Your task to perform on an android device: choose inbox layout in the gmail app Image 0: 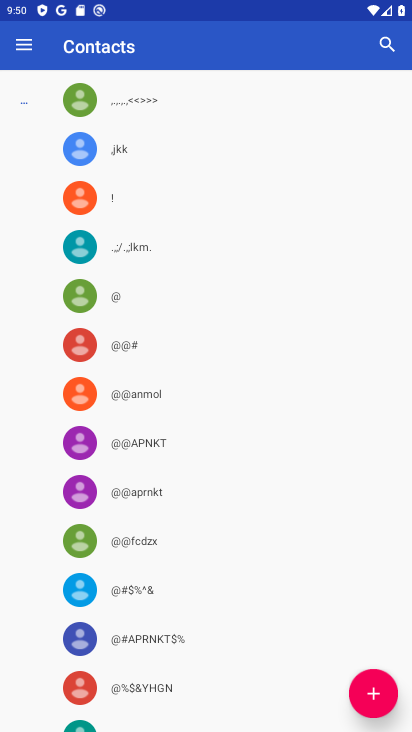
Step 0: press home button
Your task to perform on an android device: choose inbox layout in the gmail app Image 1: 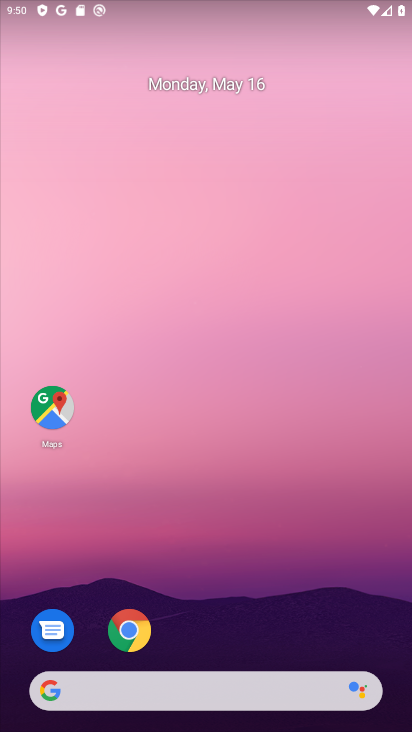
Step 1: drag from (195, 669) to (258, 193)
Your task to perform on an android device: choose inbox layout in the gmail app Image 2: 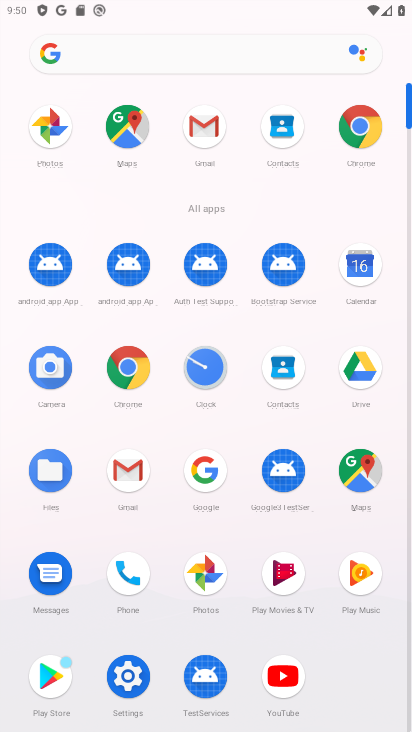
Step 2: click (137, 487)
Your task to perform on an android device: choose inbox layout in the gmail app Image 3: 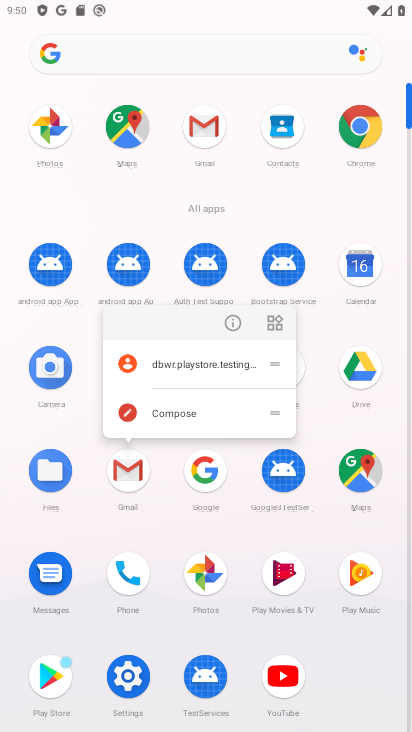
Step 3: click (133, 477)
Your task to perform on an android device: choose inbox layout in the gmail app Image 4: 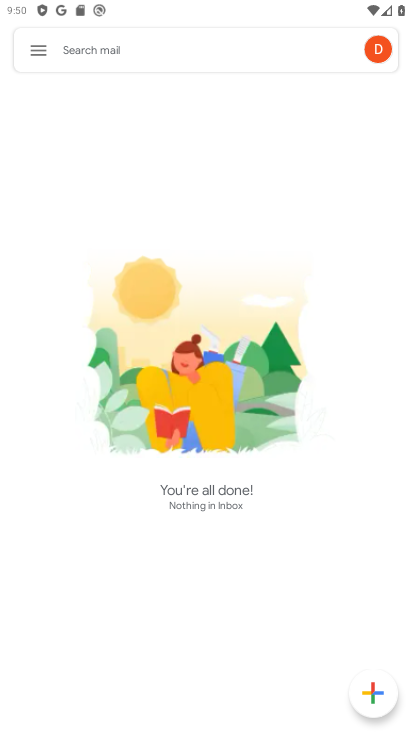
Step 4: click (28, 42)
Your task to perform on an android device: choose inbox layout in the gmail app Image 5: 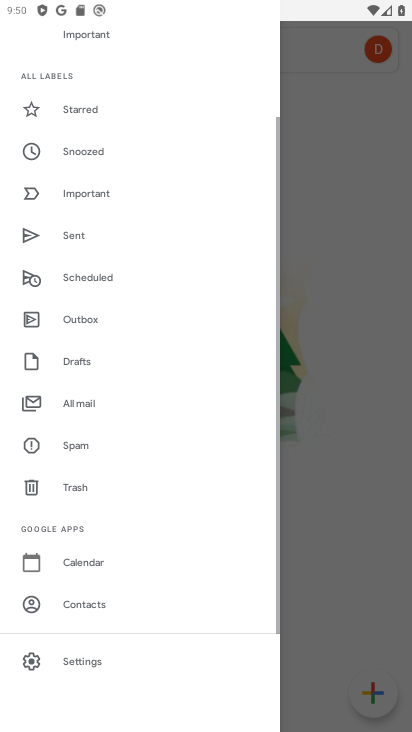
Step 5: click (80, 658)
Your task to perform on an android device: choose inbox layout in the gmail app Image 6: 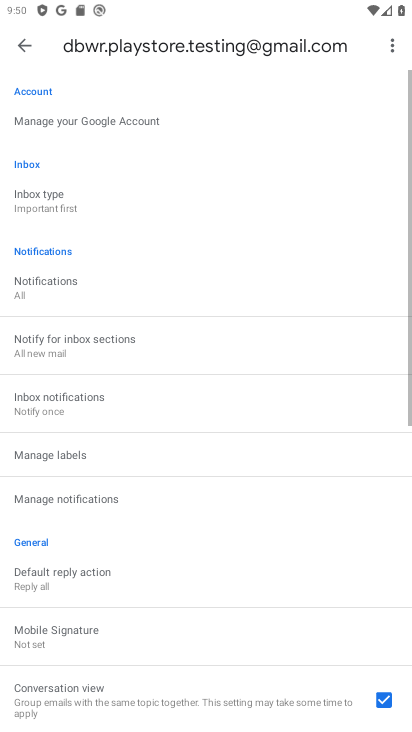
Step 6: click (91, 208)
Your task to perform on an android device: choose inbox layout in the gmail app Image 7: 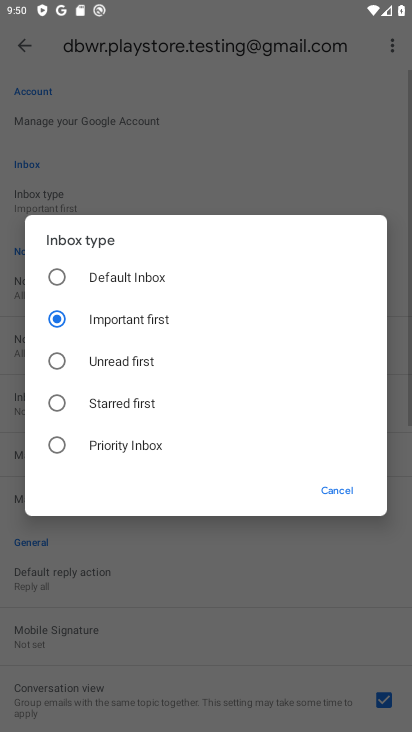
Step 7: click (71, 368)
Your task to perform on an android device: choose inbox layout in the gmail app Image 8: 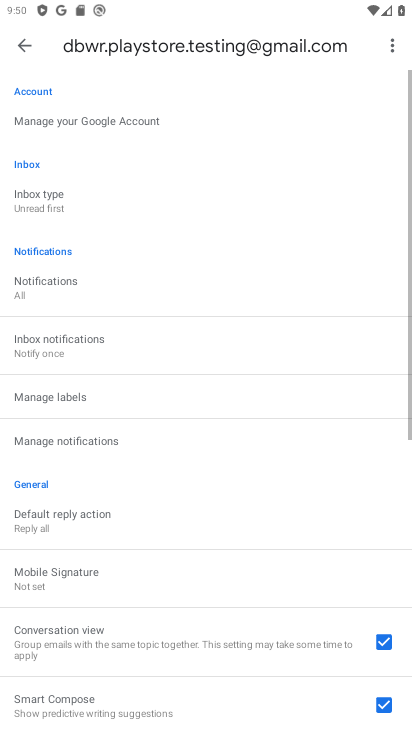
Step 8: task complete